Your task to perform on an android device: What's the weather going to be tomorrow? Image 0: 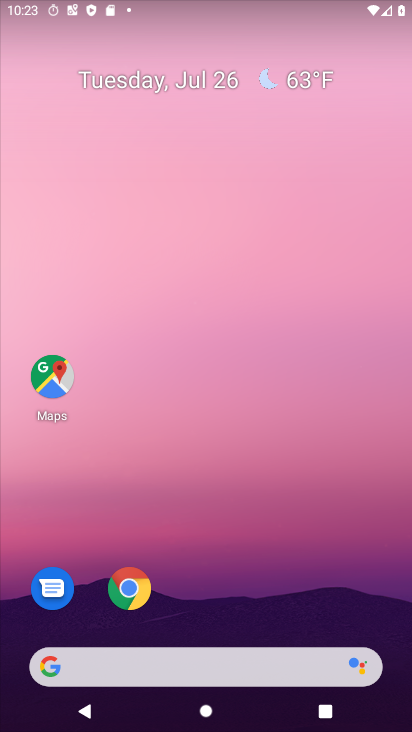
Step 0: click (159, 654)
Your task to perform on an android device: What's the weather going to be tomorrow? Image 1: 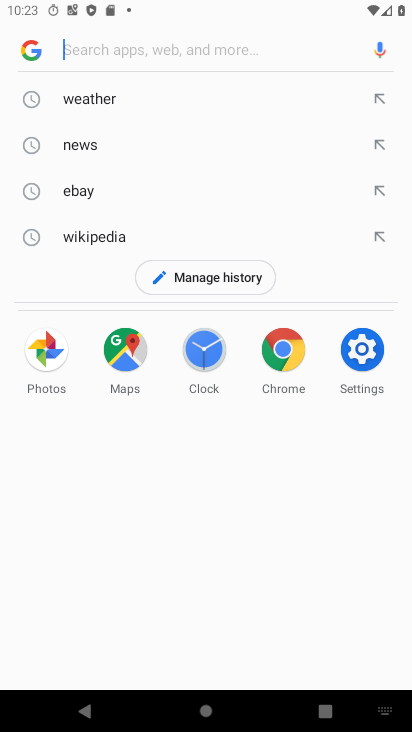
Step 1: click (121, 94)
Your task to perform on an android device: What's the weather going to be tomorrow? Image 2: 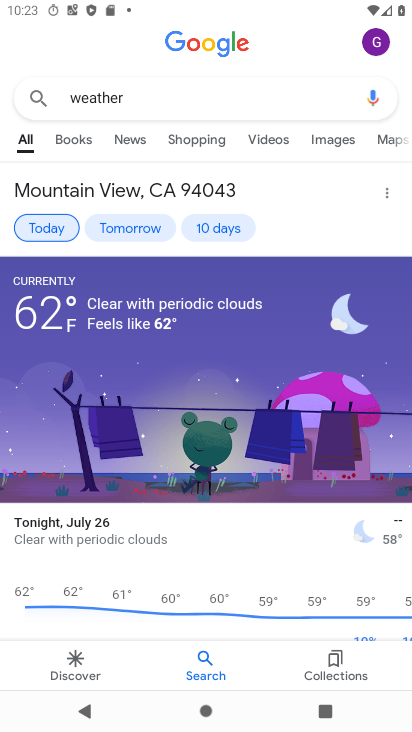
Step 2: task complete